Your task to perform on an android device: turn on priority inbox in the gmail app Image 0: 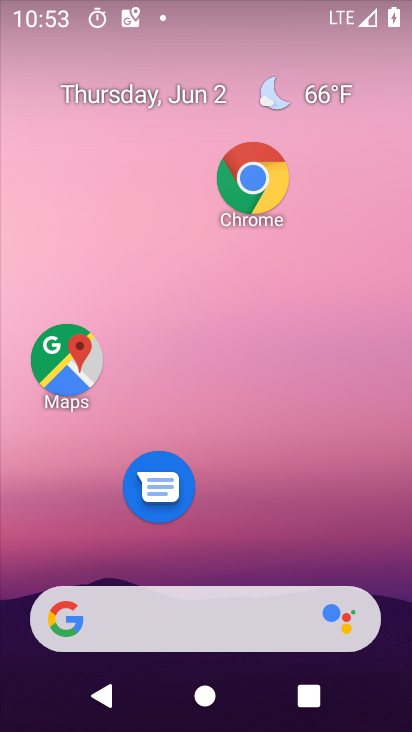
Step 0: drag from (226, 726) to (226, 76)
Your task to perform on an android device: turn on priority inbox in the gmail app Image 1: 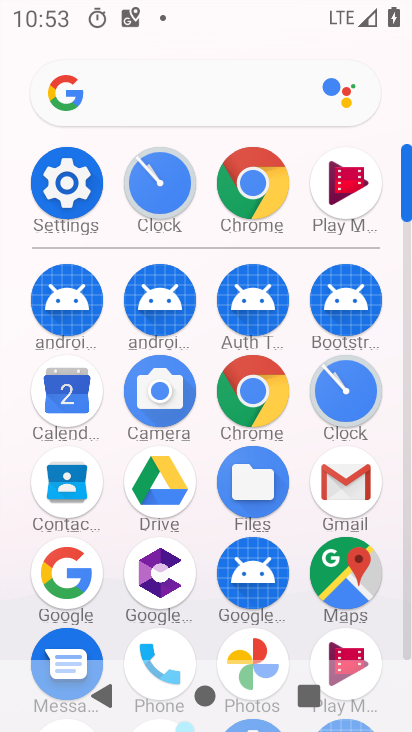
Step 1: click (351, 473)
Your task to perform on an android device: turn on priority inbox in the gmail app Image 2: 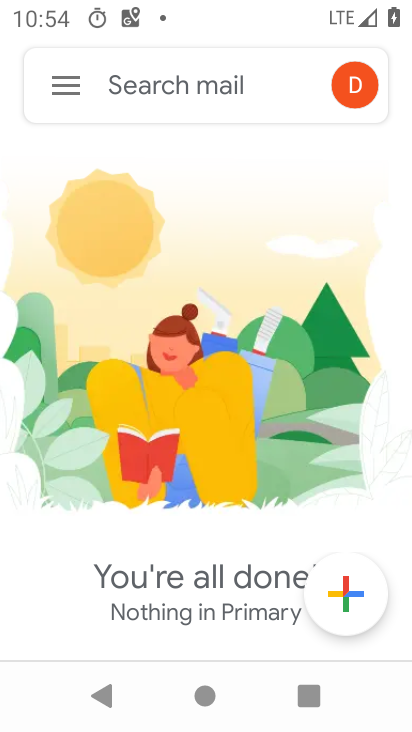
Step 2: click (56, 87)
Your task to perform on an android device: turn on priority inbox in the gmail app Image 3: 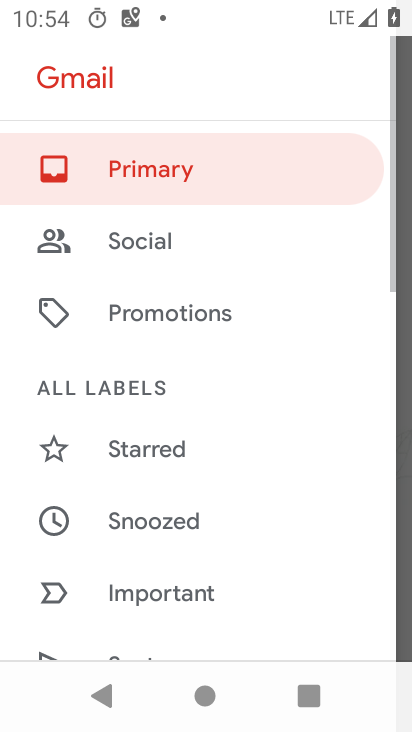
Step 3: drag from (170, 638) to (171, 210)
Your task to perform on an android device: turn on priority inbox in the gmail app Image 4: 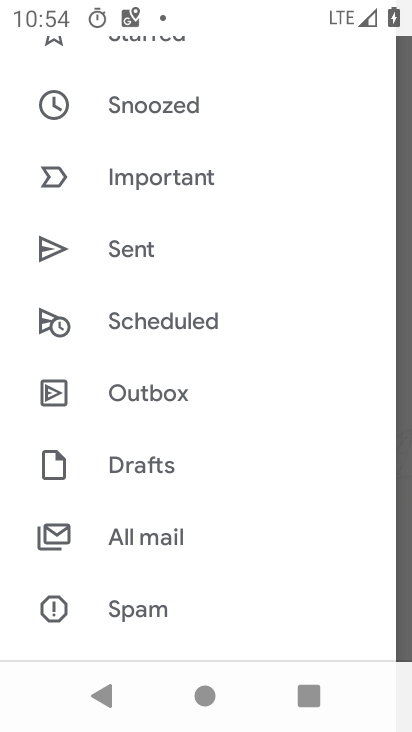
Step 4: drag from (155, 630) to (156, 189)
Your task to perform on an android device: turn on priority inbox in the gmail app Image 5: 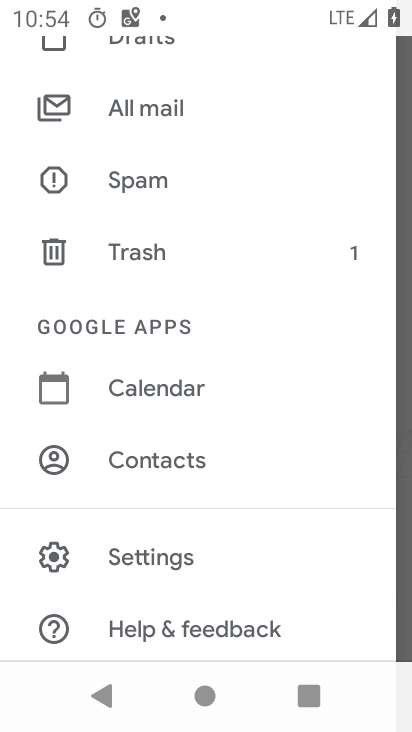
Step 5: click (146, 554)
Your task to perform on an android device: turn on priority inbox in the gmail app Image 6: 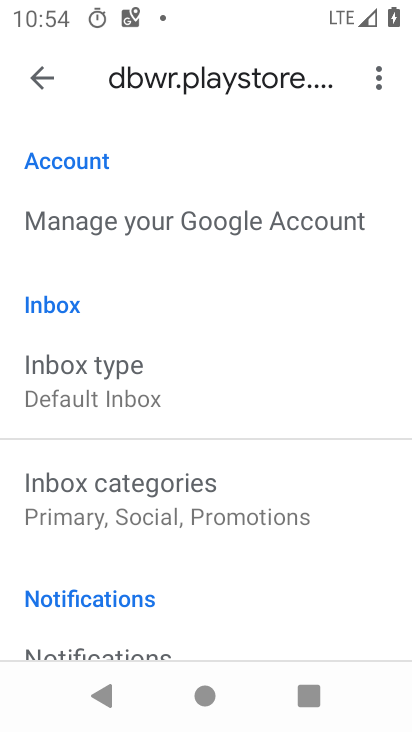
Step 6: click (85, 396)
Your task to perform on an android device: turn on priority inbox in the gmail app Image 7: 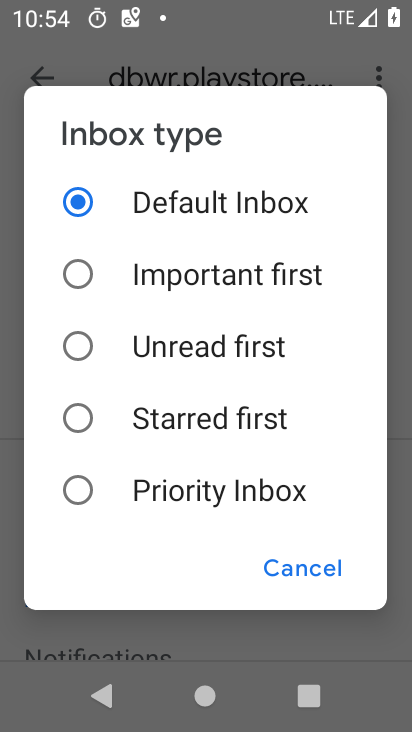
Step 7: click (79, 485)
Your task to perform on an android device: turn on priority inbox in the gmail app Image 8: 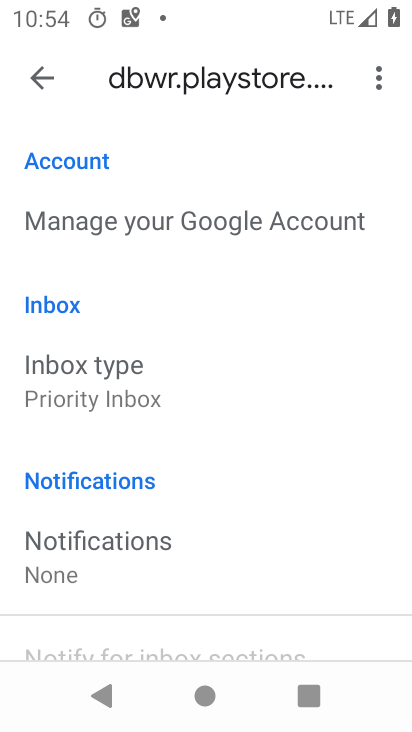
Step 8: task complete